Your task to perform on an android device: toggle notification dots Image 0: 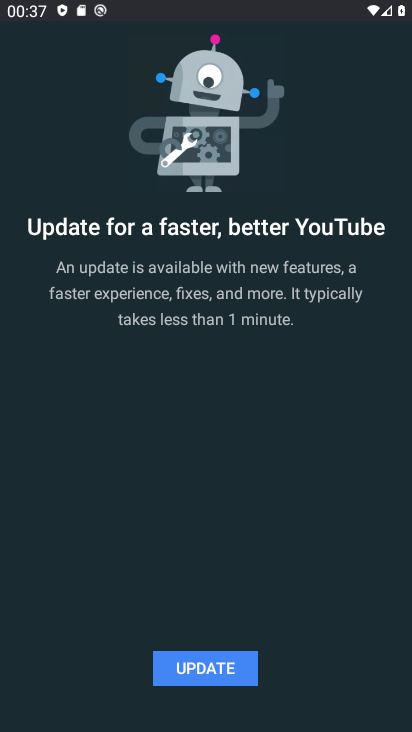
Step 0: press home button
Your task to perform on an android device: toggle notification dots Image 1: 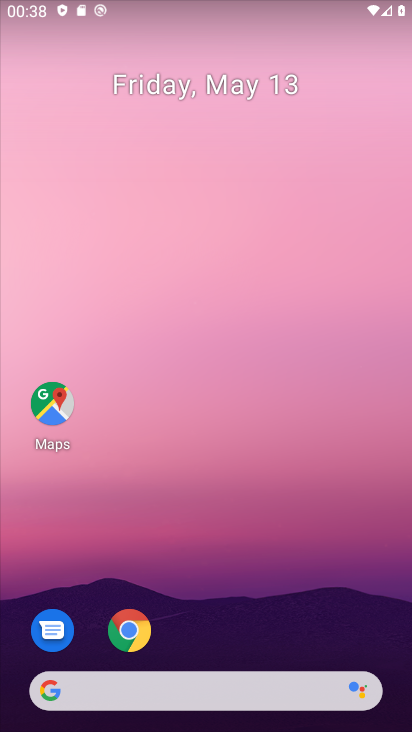
Step 1: drag from (253, 708) to (328, 241)
Your task to perform on an android device: toggle notification dots Image 2: 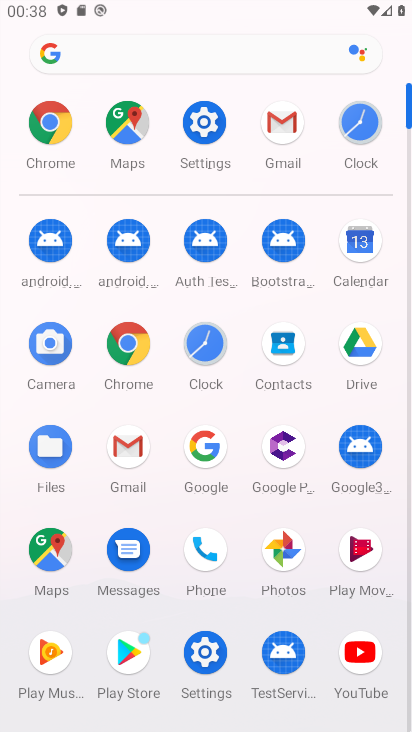
Step 2: click (217, 661)
Your task to perform on an android device: toggle notification dots Image 3: 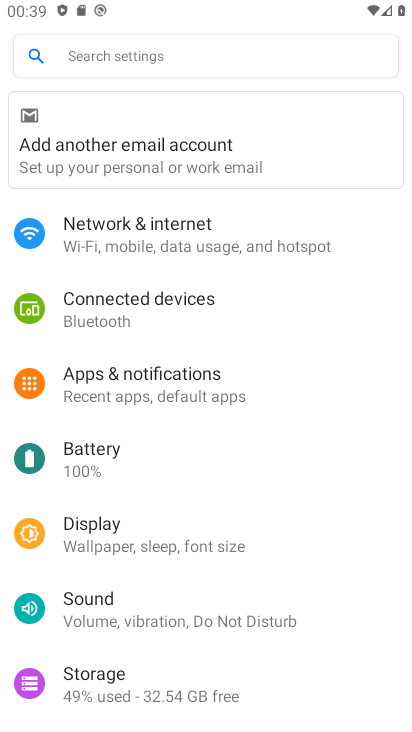
Step 3: click (187, 65)
Your task to perform on an android device: toggle notification dots Image 4: 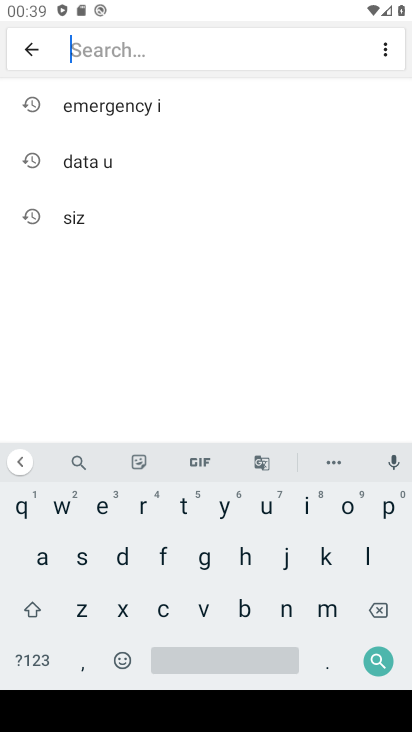
Step 4: click (120, 565)
Your task to perform on an android device: toggle notification dots Image 5: 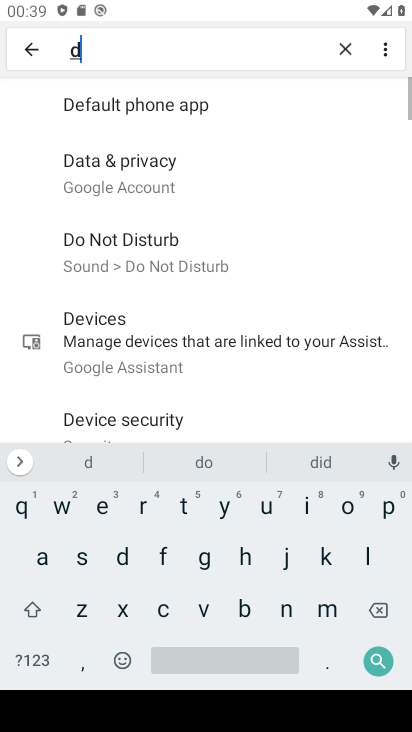
Step 5: click (345, 510)
Your task to perform on an android device: toggle notification dots Image 6: 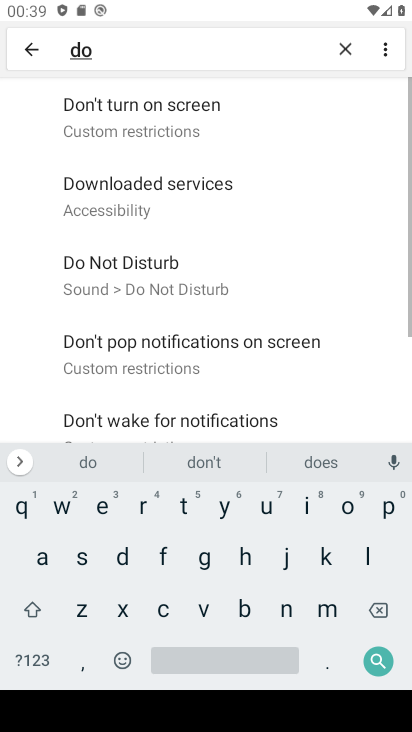
Step 6: click (182, 513)
Your task to perform on an android device: toggle notification dots Image 7: 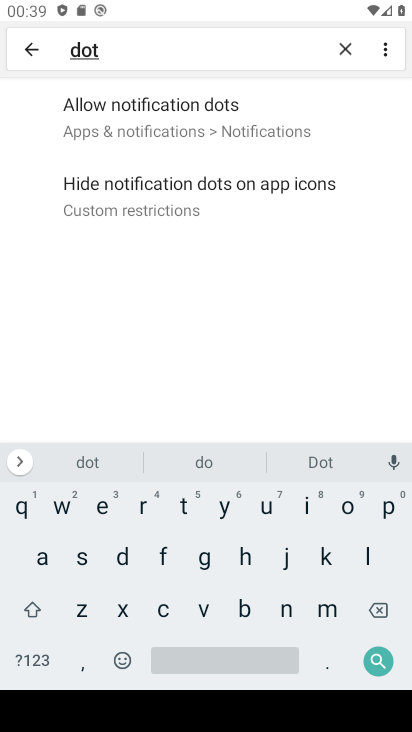
Step 7: click (197, 113)
Your task to perform on an android device: toggle notification dots Image 8: 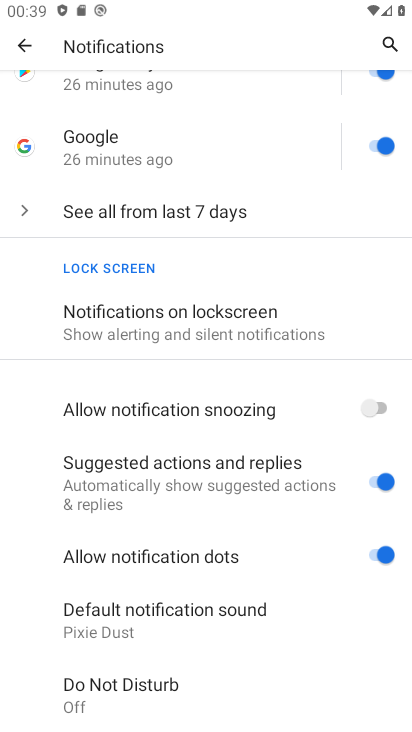
Step 8: task complete